Your task to perform on an android device: turn off location history Image 0: 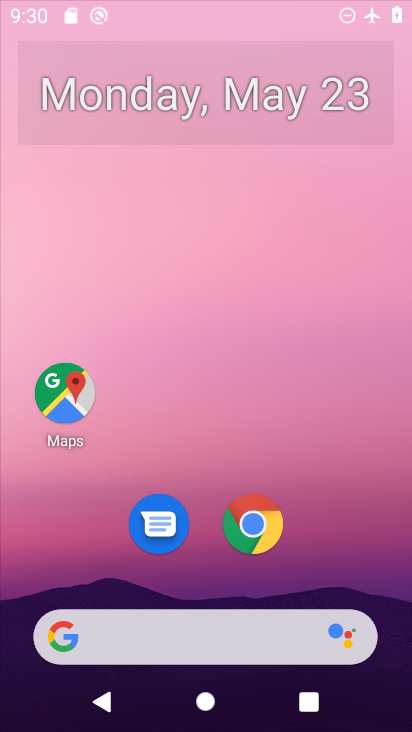
Step 0: click (246, 141)
Your task to perform on an android device: turn off location history Image 1: 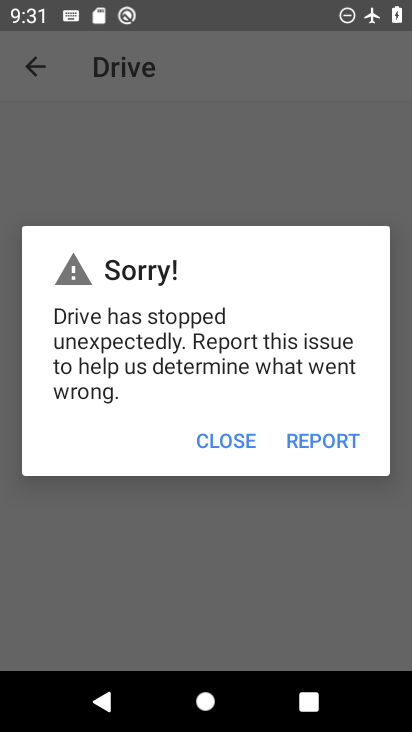
Step 1: press home button
Your task to perform on an android device: turn off location history Image 2: 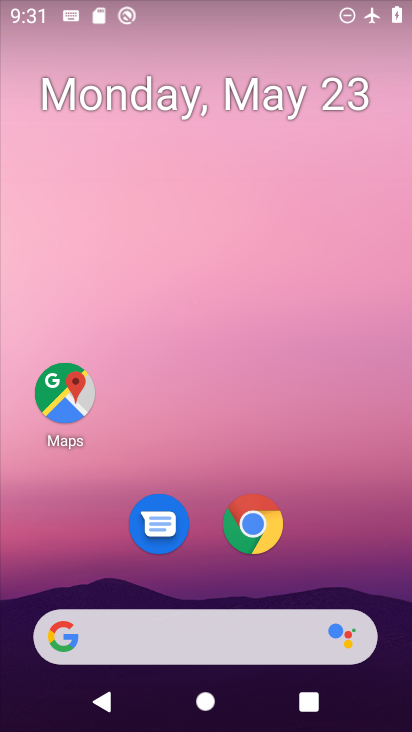
Step 2: drag from (224, 473) to (255, 10)
Your task to perform on an android device: turn off location history Image 3: 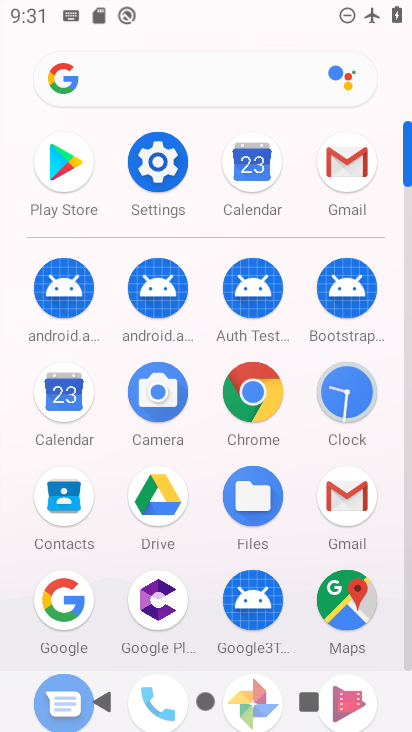
Step 3: click (159, 163)
Your task to perform on an android device: turn off location history Image 4: 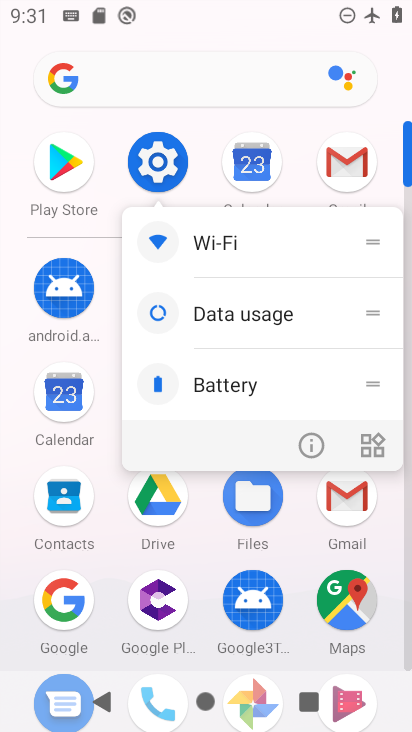
Step 4: click (159, 161)
Your task to perform on an android device: turn off location history Image 5: 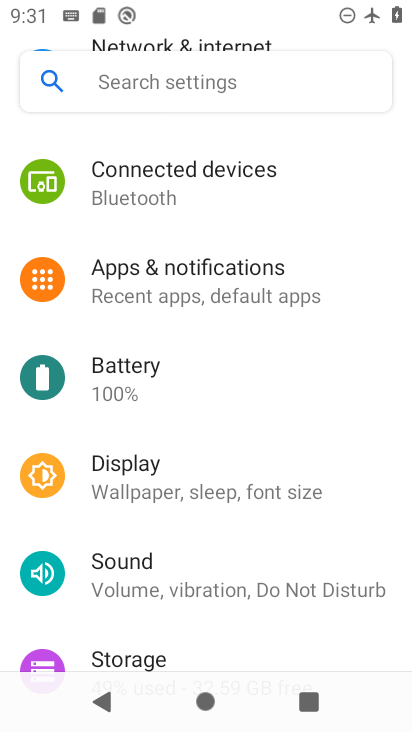
Step 5: drag from (221, 392) to (267, 76)
Your task to perform on an android device: turn off location history Image 6: 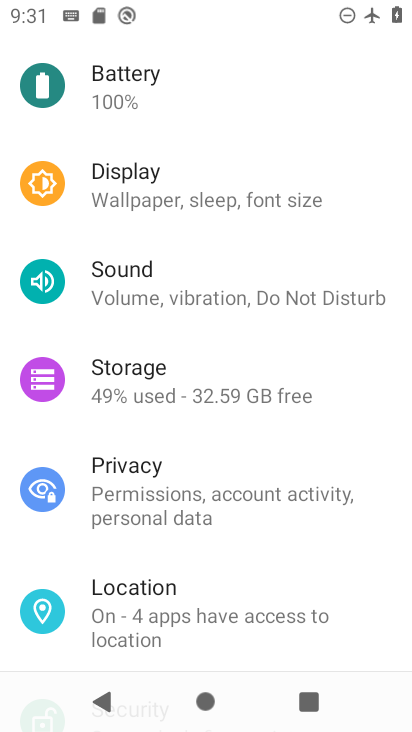
Step 6: click (239, 599)
Your task to perform on an android device: turn off location history Image 7: 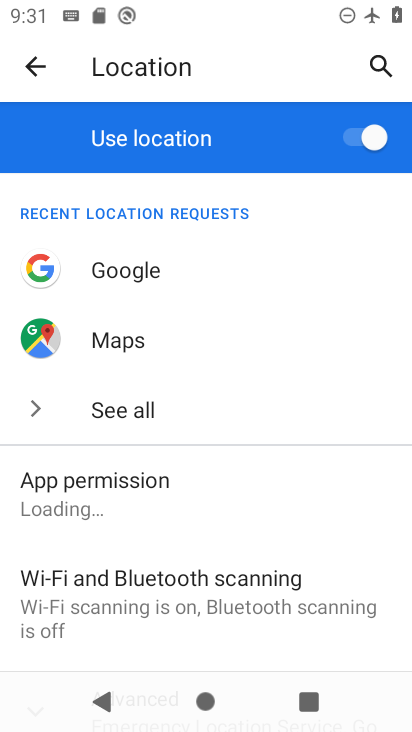
Step 7: drag from (250, 550) to (257, 184)
Your task to perform on an android device: turn off location history Image 8: 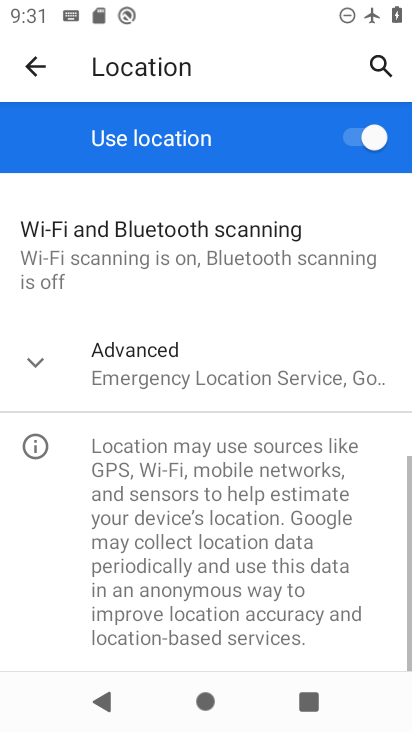
Step 8: click (32, 357)
Your task to perform on an android device: turn off location history Image 9: 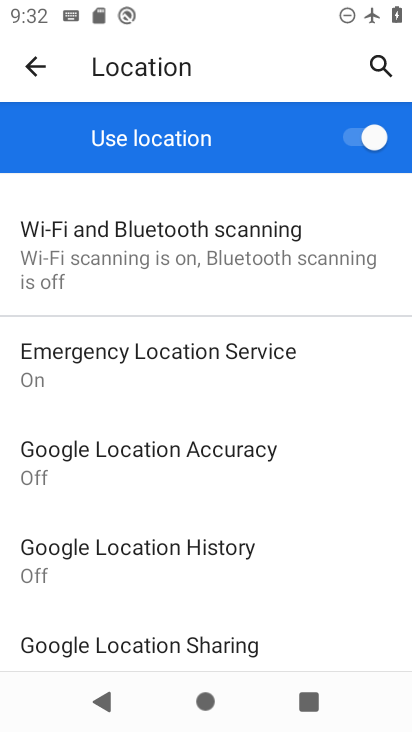
Step 9: task complete